Your task to perform on an android device: turn on showing notifications on the lock screen Image 0: 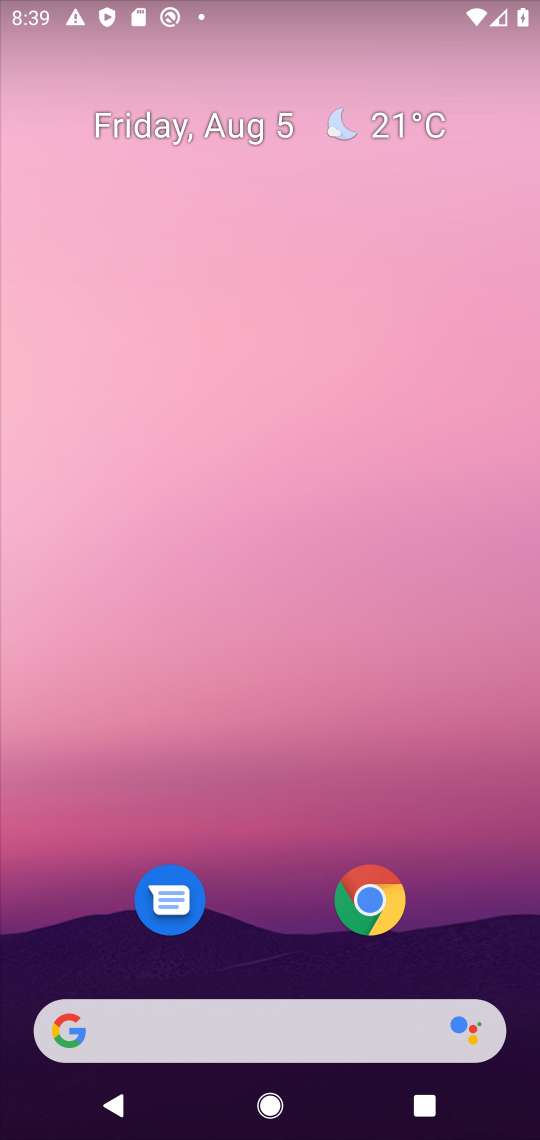
Step 0: press home button
Your task to perform on an android device: turn on showing notifications on the lock screen Image 1: 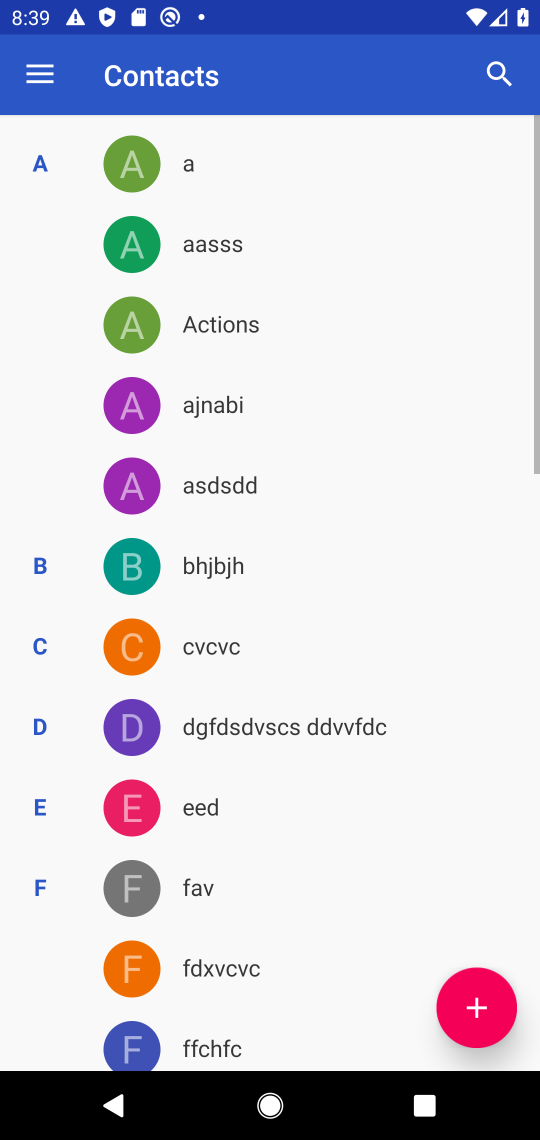
Step 1: press home button
Your task to perform on an android device: turn on showing notifications on the lock screen Image 2: 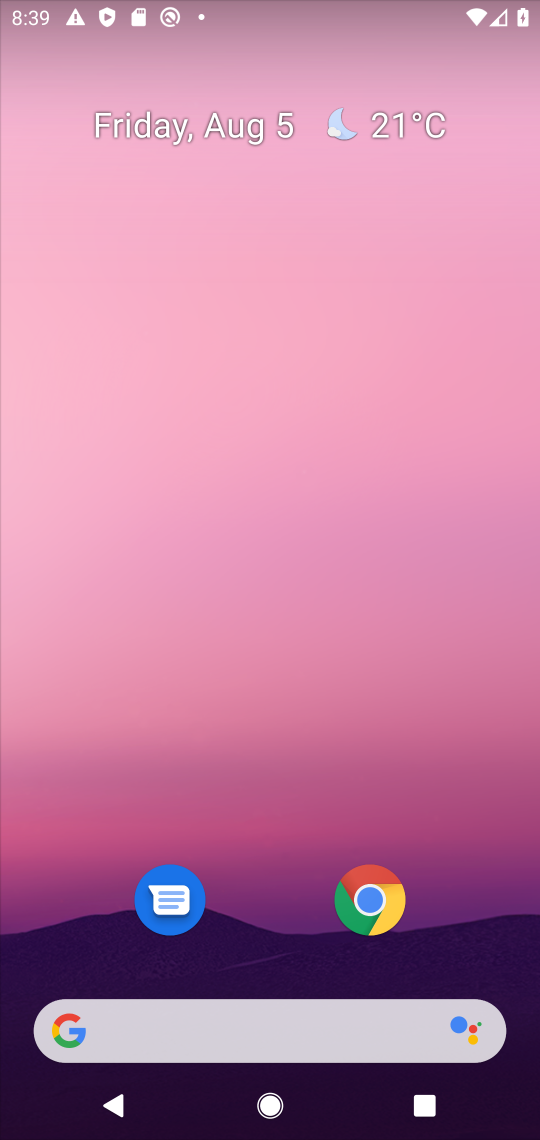
Step 2: drag from (301, 894) to (301, 500)
Your task to perform on an android device: turn on showing notifications on the lock screen Image 3: 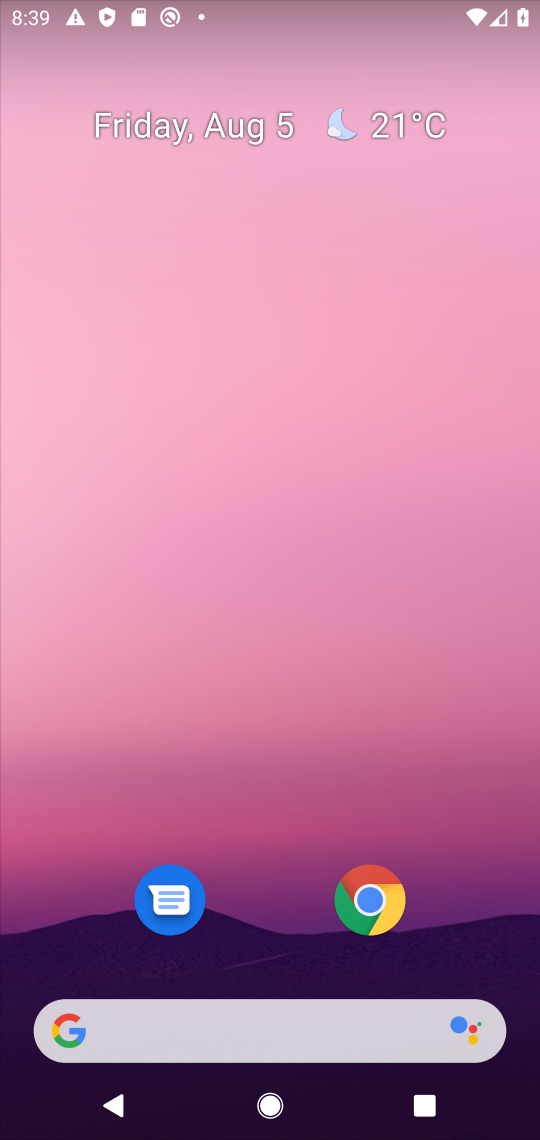
Step 3: drag from (200, 1101) to (106, 0)
Your task to perform on an android device: turn on showing notifications on the lock screen Image 4: 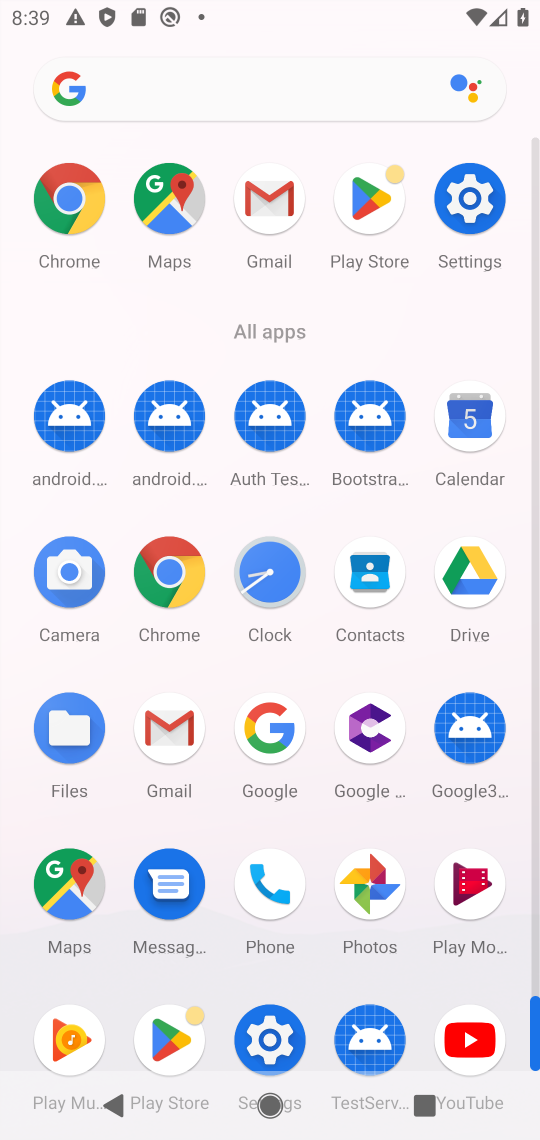
Step 4: click (261, 1038)
Your task to perform on an android device: turn on showing notifications on the lock screen Image 5: 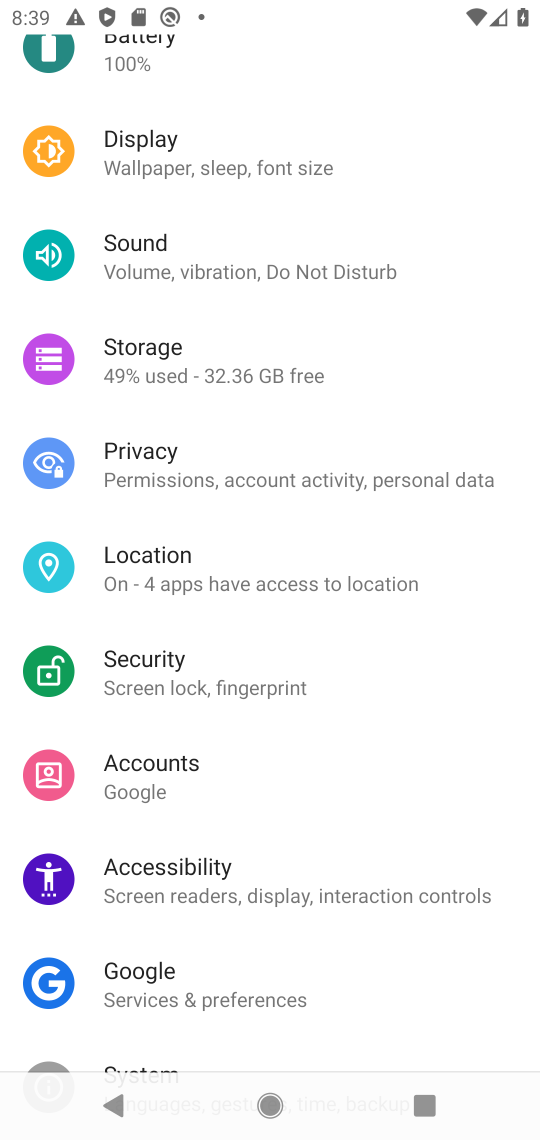
Step 5: drag from (188, 417) to (177, 923)
Your task to perform on an android device: turn on showing notifications on the lock screen Image 6: 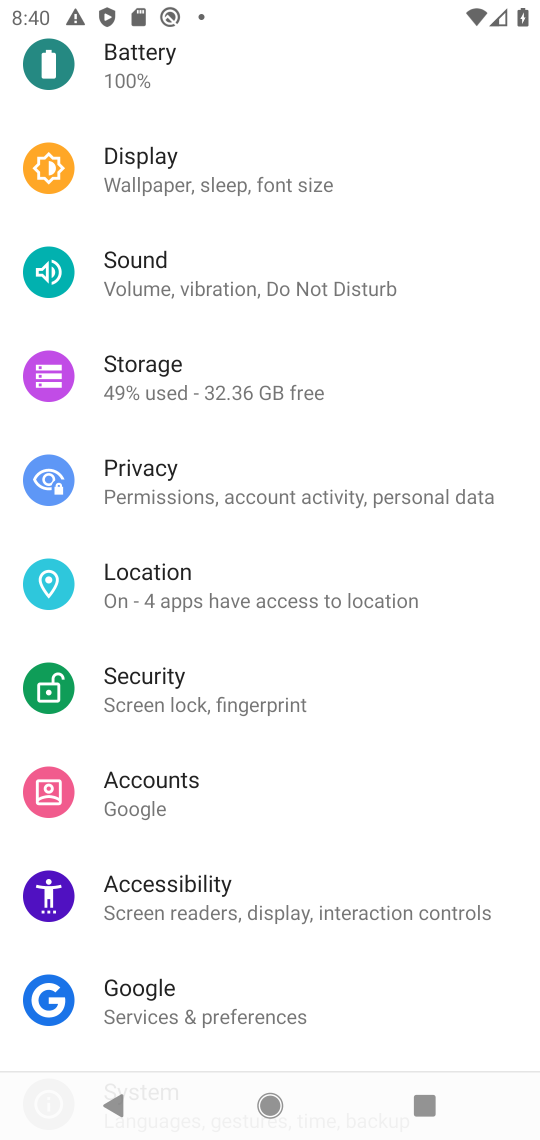
Step 6: drag from (179, 267) to (153, 1128)
Your task to perform on an android device: turn on showing notifications on the lock screen Image 7: 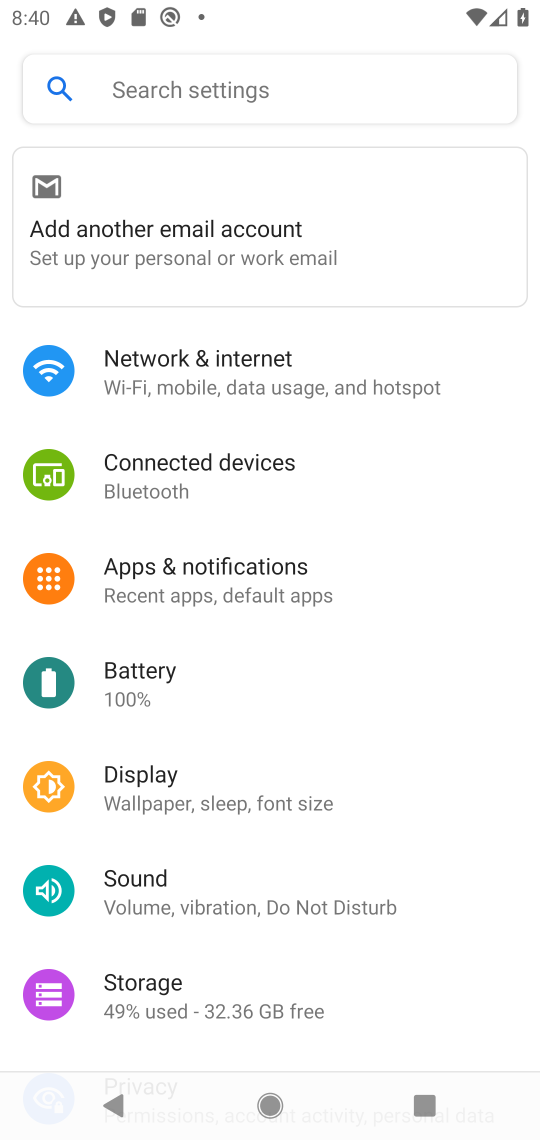
Step 7: click (236, 613)
Your task to perform on an android device: turn on showing notifications on the lock screen Image 8: 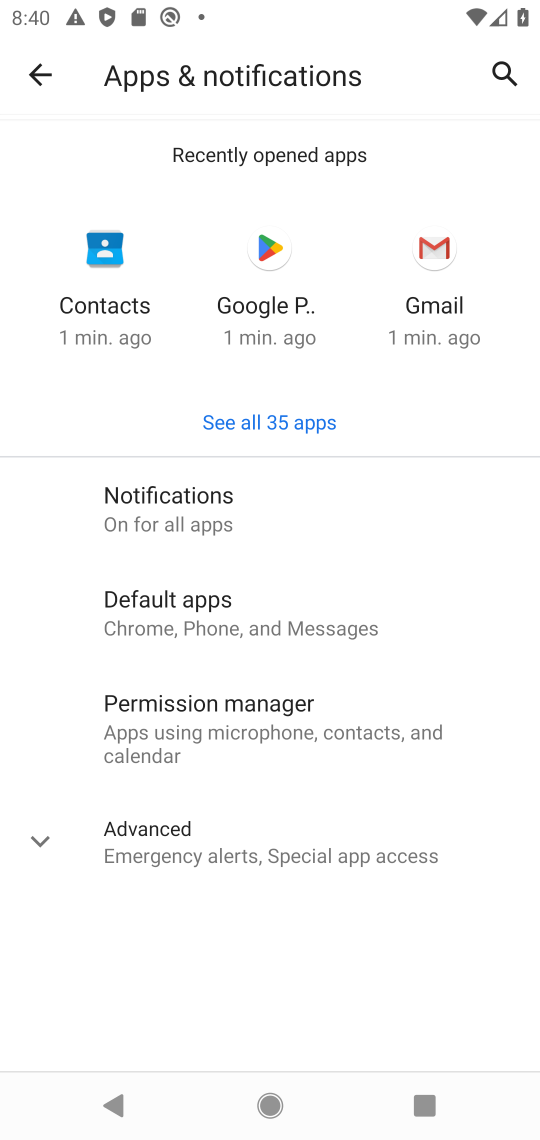
Step 8: click (192, 487)
Your task to perform on an android device: turn on showing notifications on the lock screen Image 9: 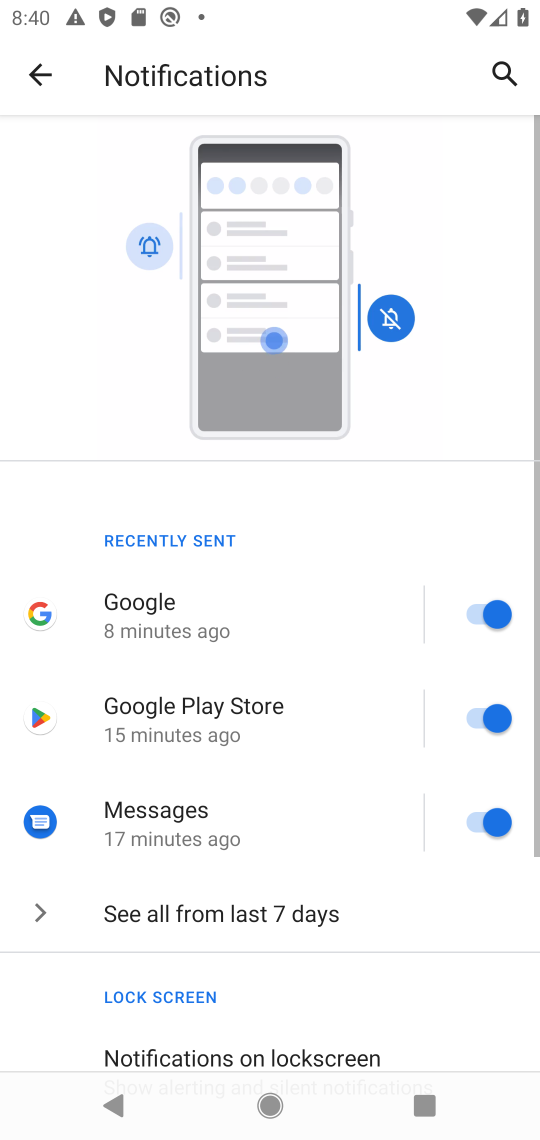
Step 9: drag from (300, 909) to (327, 250)
Your task to perform on an android device: turn on showing notifications on the lock screen Image 10: 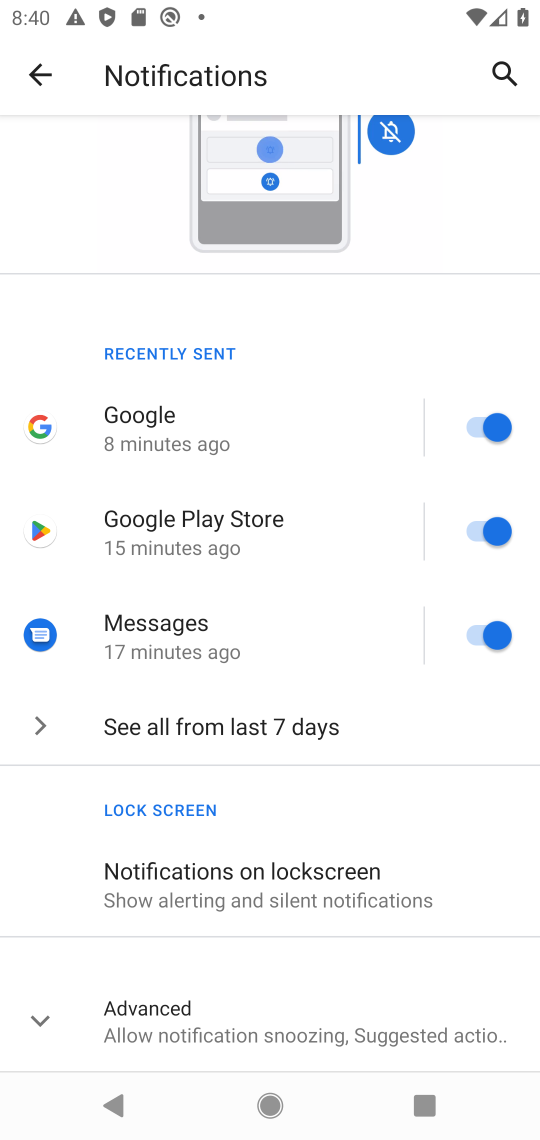
Step 10: click (243, 868)
Your task to perform on an android device: turn on showing notifications on the lock screen Image 11: 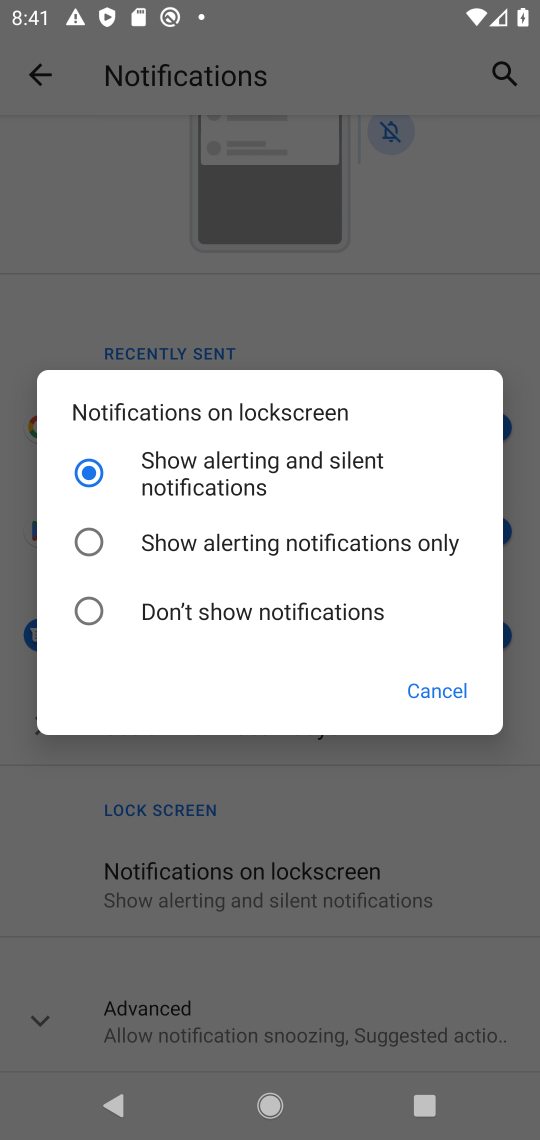
Step 11: click (114, 546)
Your task to perform on an android device: turn on showing notifications on the lock screen Image 12: 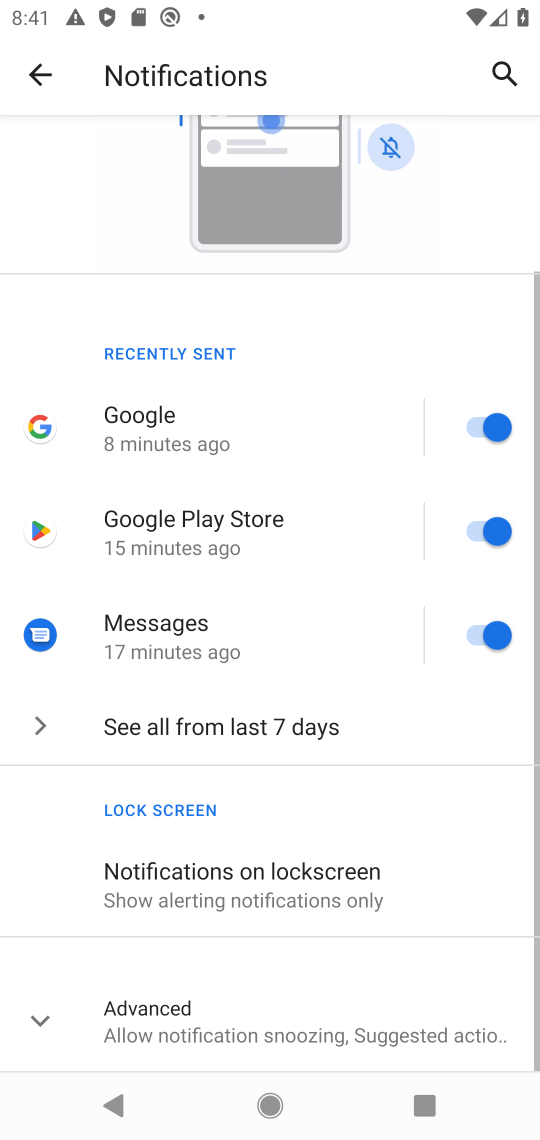
Step 12: task complete